Your task to perform on an android device: set the stopwatch Image 0: 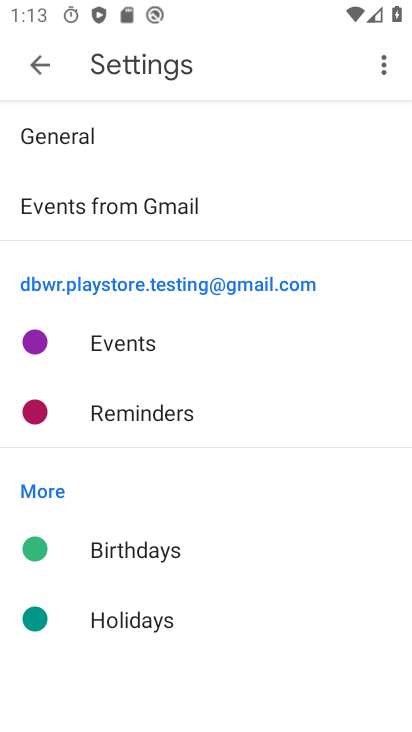
Step 0: press home button
Your task to perform on an android device: set the stopwatch Image 1: 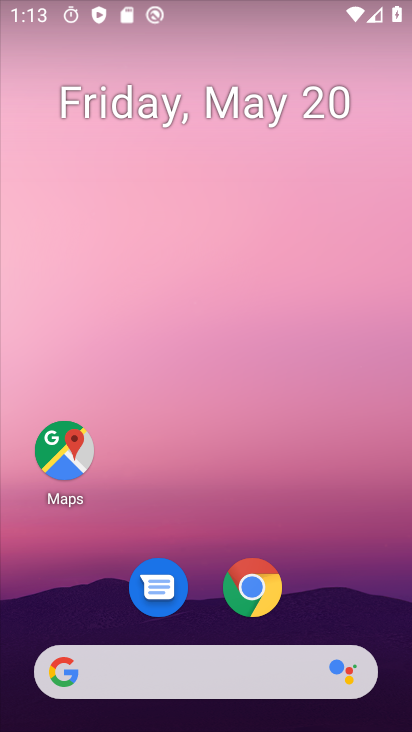
Step 1: drag from (363, 590) to (319, 94)
Your task to perform on an android device: set the stopwatch Image 2: 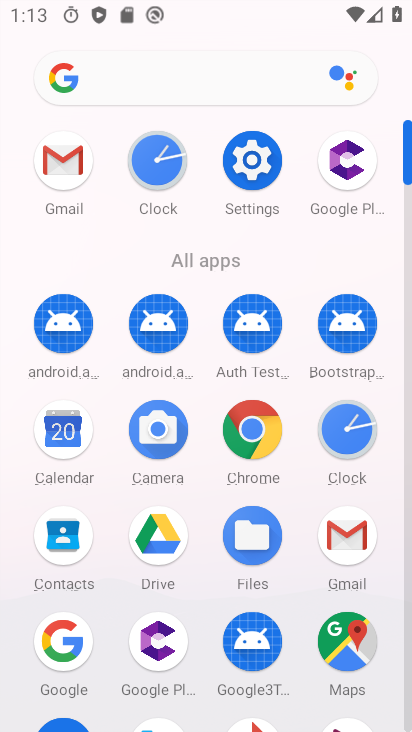
Step 2: click (159, 161)
Your task to perform on an android device: set the stopwatch Image 3: 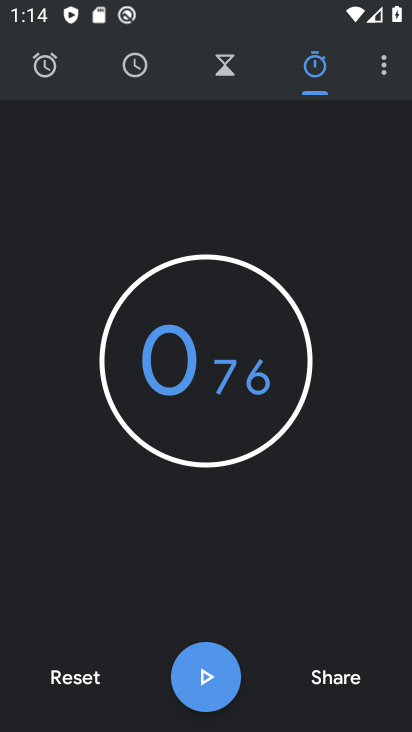
Step 3: task complete